Your task to perform on an android device: toggle pop-ups in chrome Image 0: 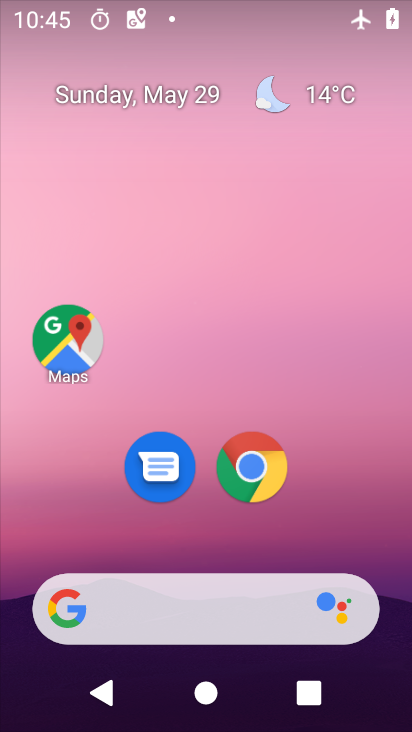
Step 0: click (258, 452)
Your task to perform on an android device: toggle pop-ups in chrome Image 1: 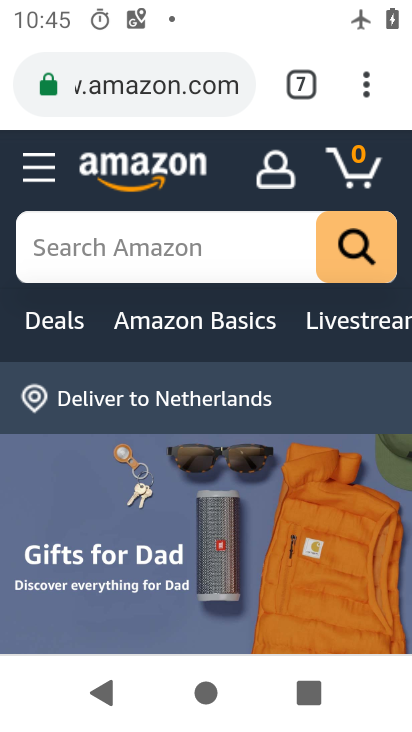
Step 1: click (361, 88)
Your task to perform on an android device: toggle pop-ups in chrome Image 2: 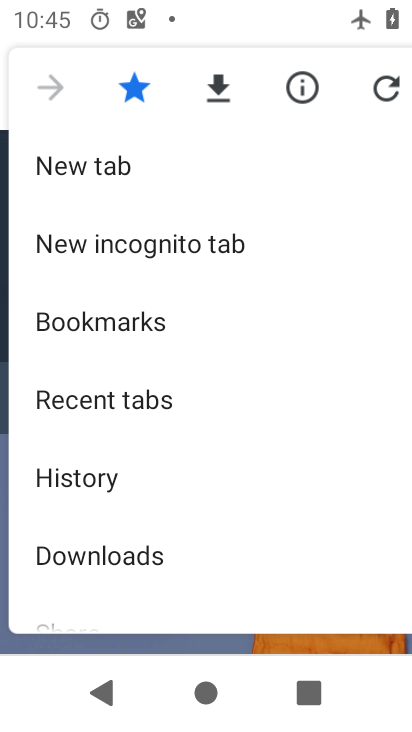
Step 2: drag from (175, 527) to (176, 203)
Your task to perform on an android device: toggle pop-ups in chrome Image 3: 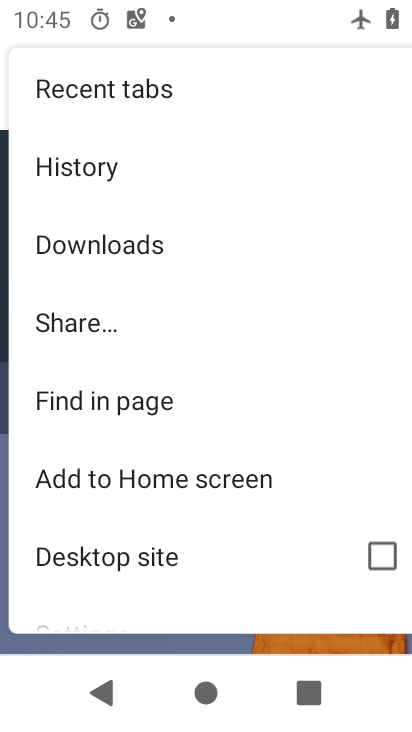
Step 3: drag from (143, 537) to (158, 226)
Your task to perform on an android device: toggle pop-ups in chrome Image 4: 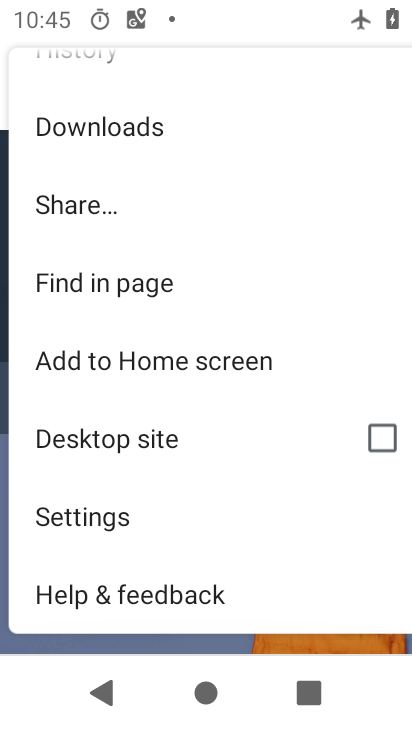
Step 4: click (139, 510)
Your task to perform on an android device: toggle pop-ups in chrome Image 5: 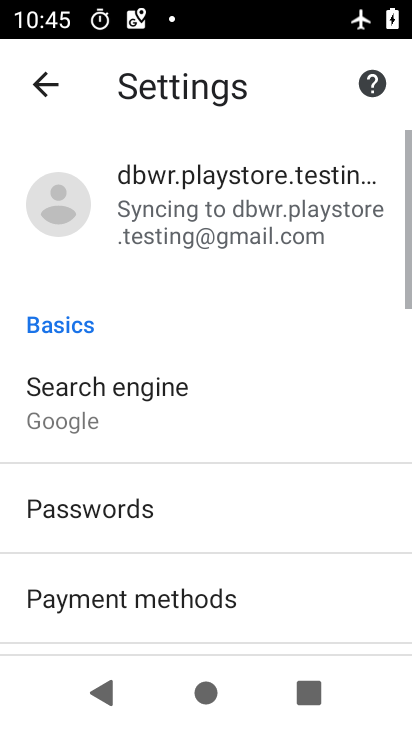
Step 5: drag from (197, 543) to (173, 232)
Your task to perform on an android device: toggle pop-ups in chrome Image 6: 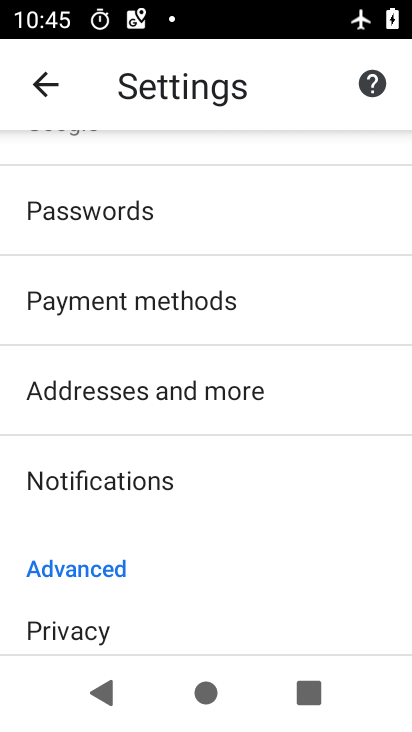
Step 6: drag from (162, 570) to (163, 248)
Your task to perform on an android device: toggle pop-ups in chrome Image 7: 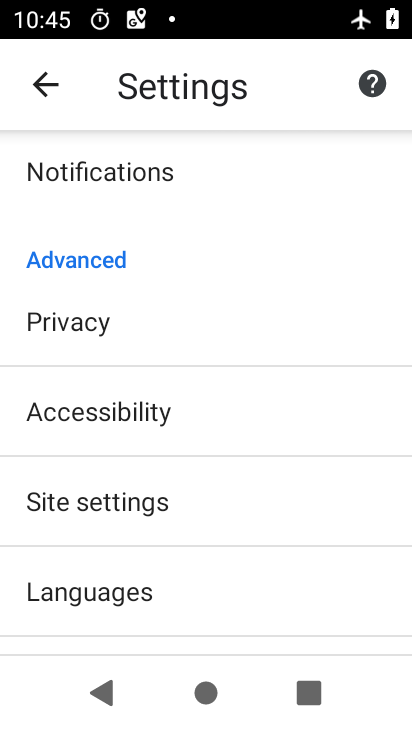
Step 7: click (123, 487)
Your task to perform on an android device: toggle pop-ups in chrome Image 8: 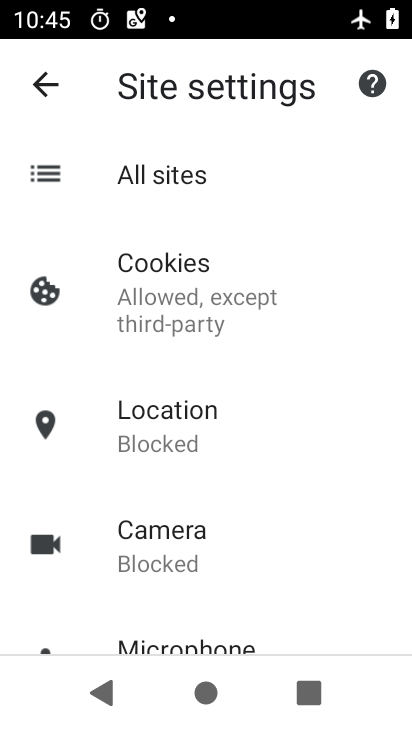
Step 8: drag from (137, 593) to (144, 319)
Your task to perform on an android device: toggle pop-ups in chrome Image 9: 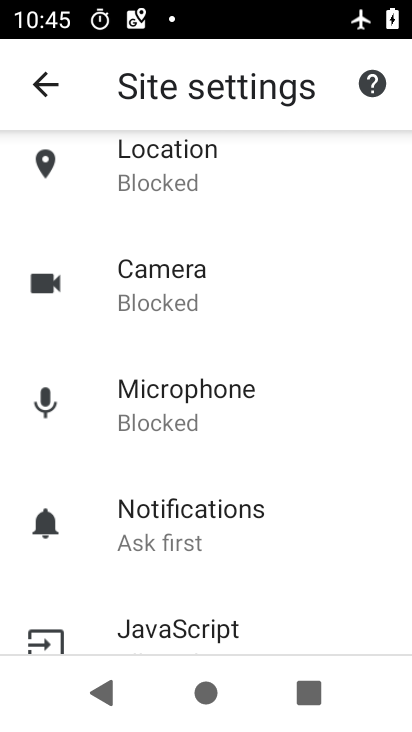
Step 9: drag from (184, 566) to (186, 324)
Your task to perform on an android device: toggle pop-ups in chrome Image 10: 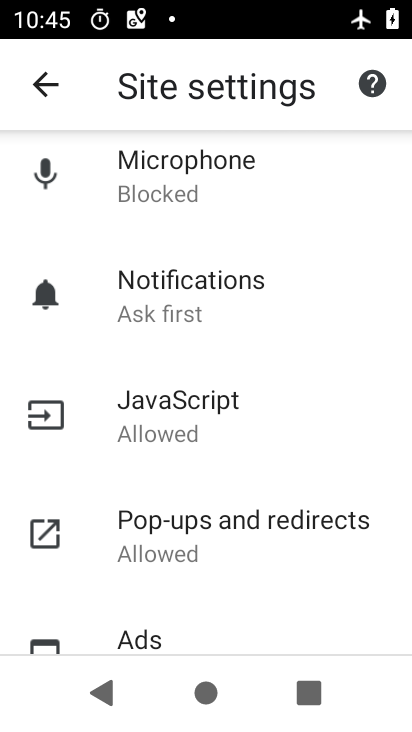
Step 10: click (180, 531)
Your task to perform on an android device: toggle pop-ups in chrome Image 11: 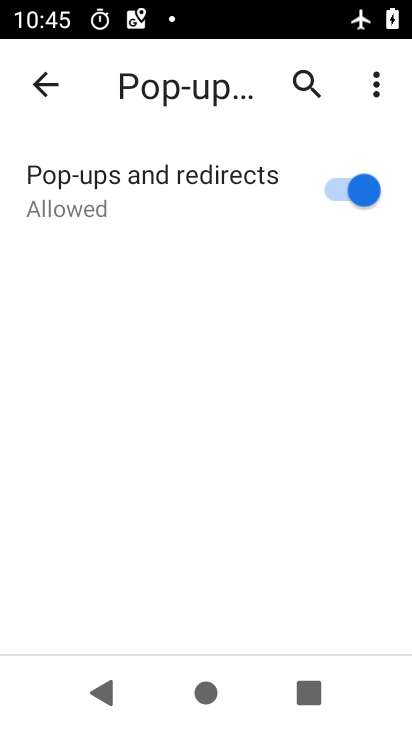
Step 11: click (325, 192)
Your task to perform on an android device: toggle pop-ups in chrome Image 12: 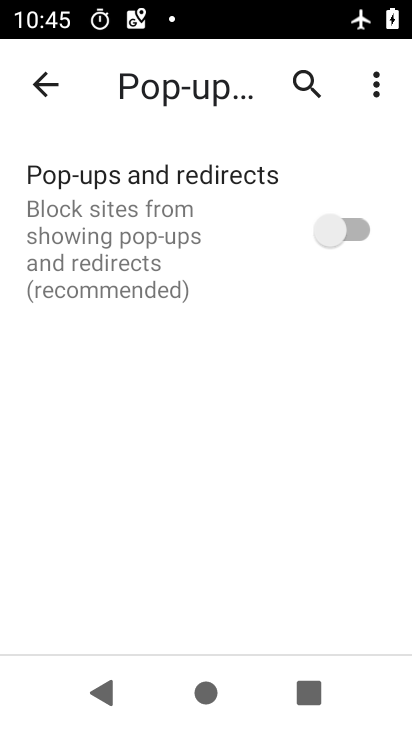
Step 12: task complete